Your task to perform on an android device: Search for Italian restaurants on Maps Image 0: 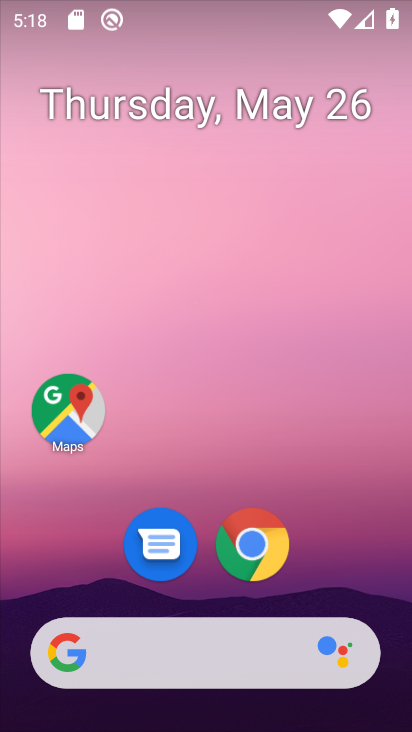
Step 0: click (67, 420)
Your task to perform on an android device: Search for Italian restaurants on Maps Image 1: 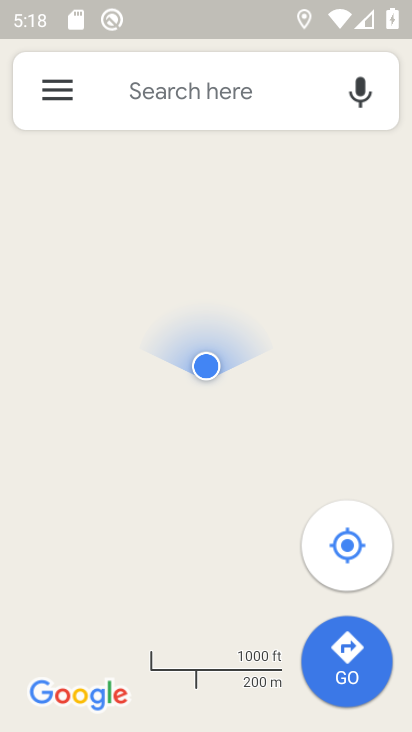
Step 1: click (210, 79)
Your task to perform on an android device: Search for Italian restaurants on Maps Image 2: 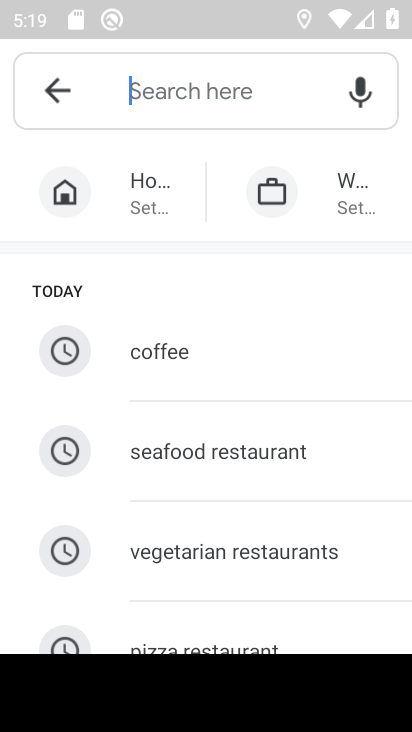
Step 2: type "Italian restaurants"
Your task to perform on an android device: Search for Italian restaurants on Maps Image 3: 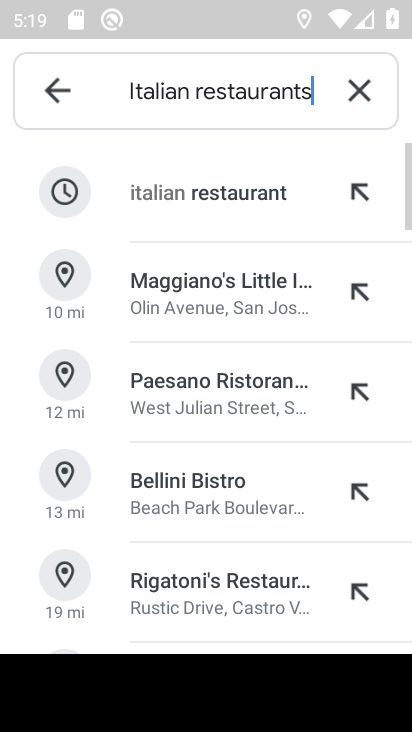
Step 3: click (257, 215)
Your task to perform on an android device: Search for Italian restaurants on Maps Image 4: 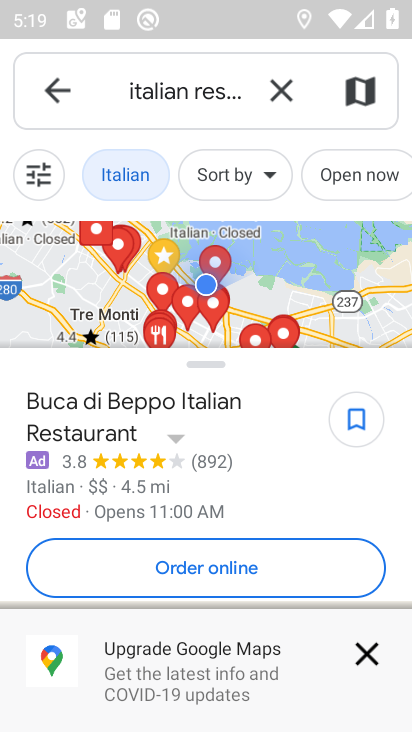
Step 4: click (369, 652)
Your task to perform on an android device: Search for Italian restaurants on Maps Image 5: 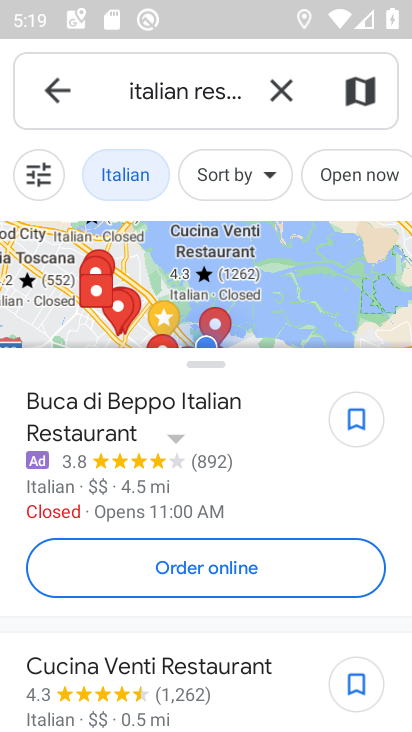
Step 5: task complete